Your task to perform on an android device: Open maps Image 0: 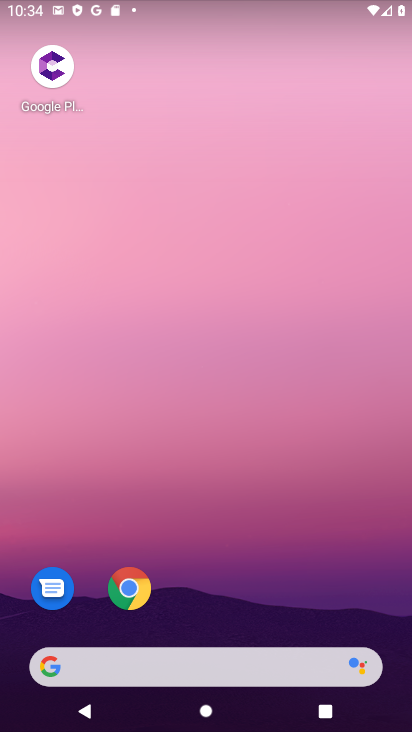
Step 0: drag from (259, 596) to (271, 33)
Your task to perform on an android device: Open maps Image 1: 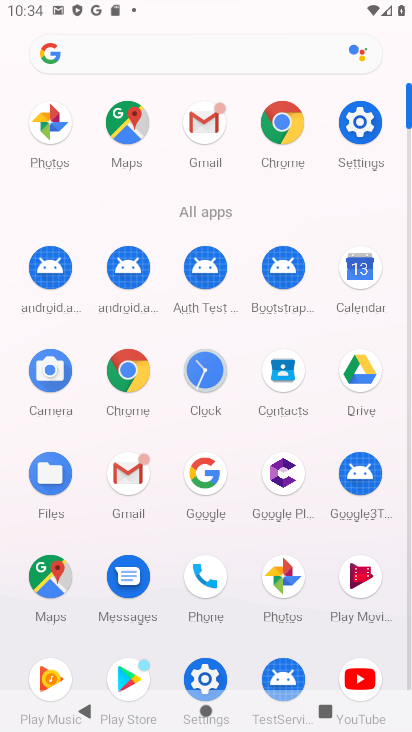
Step 1: click (48, 579)
Your task to perform on an android device: Open maps Image 2: 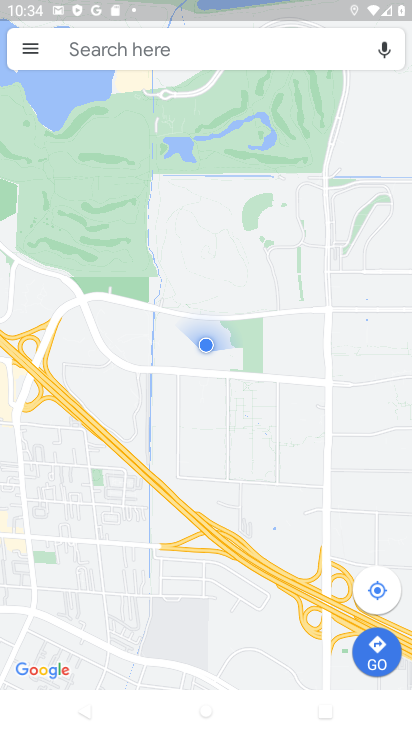
Step 2: task complete